Your task to perform on an android device: open app "Gmail" (install if not already installed) Image 0: 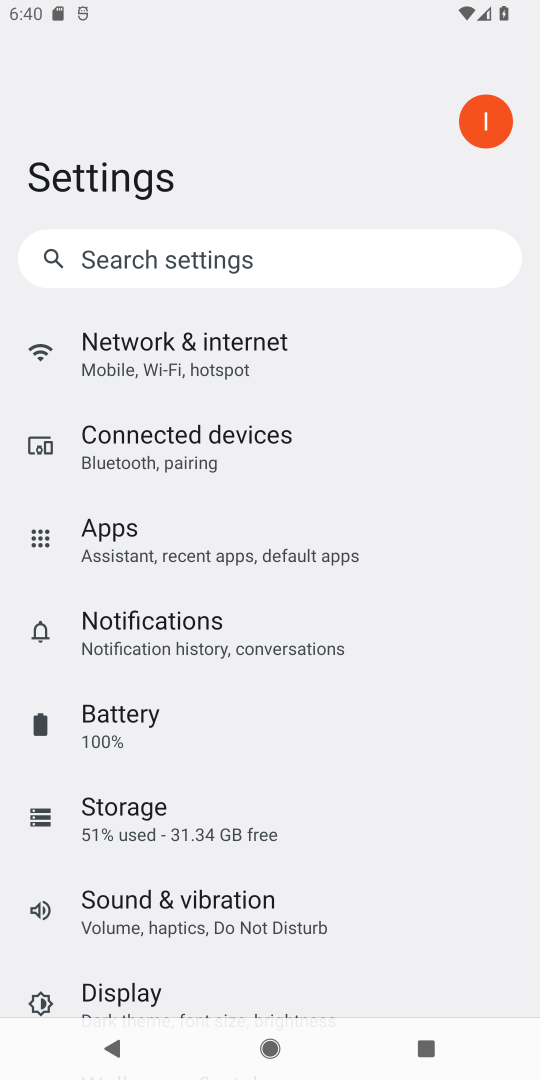
Step 0: press home button
Your task to perform on an android device: open app "Gmail" (install if not already installed) Image 1: 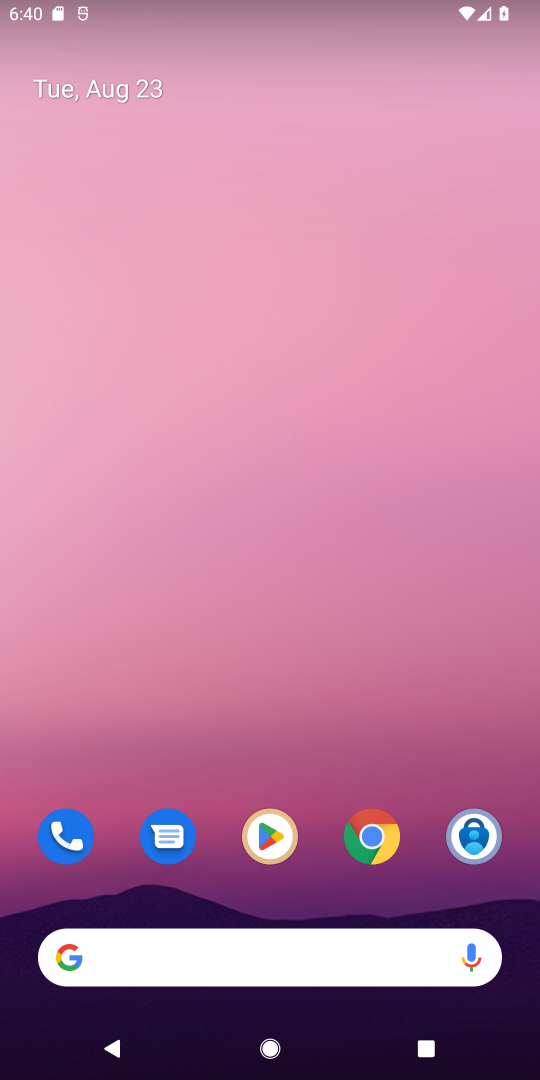
Step 1: click (269, 843)
Your task to perform on an android device: open app "Gmail" (install if not already installed) Image 2: 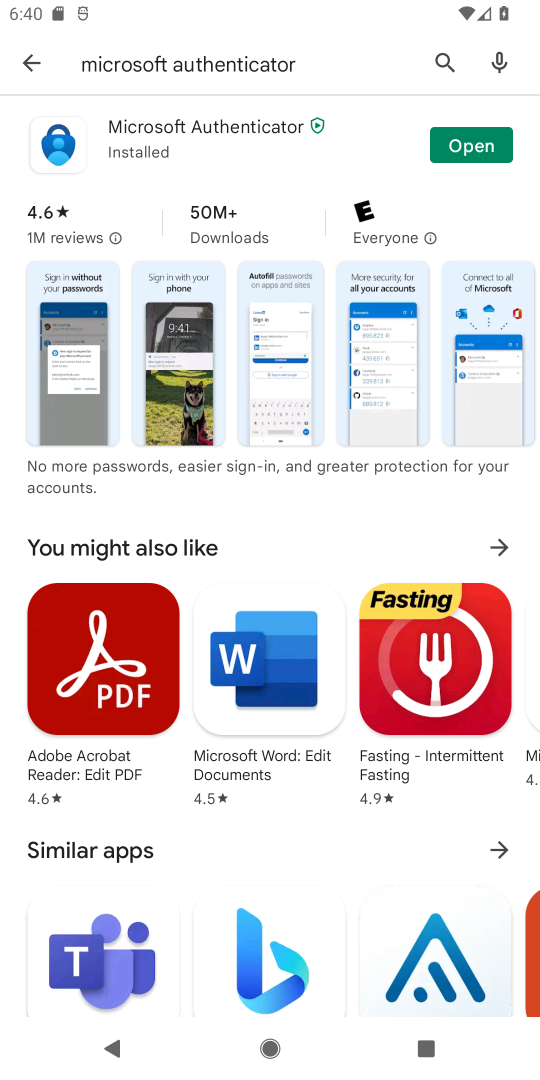
Step 2: click (443, 51)
Your task to perform on an android device: open app "Gmail" (install if not already installed) Image 3: 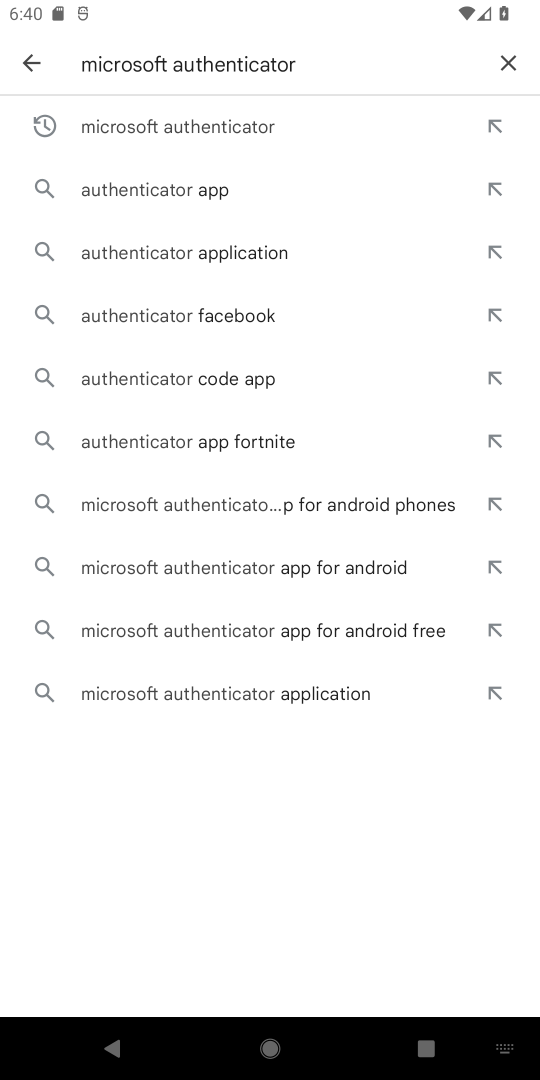
Step 3: click (505, 50)
Your task to perform on an android device: open app "Gmail" (install if not already installed) Image 4: 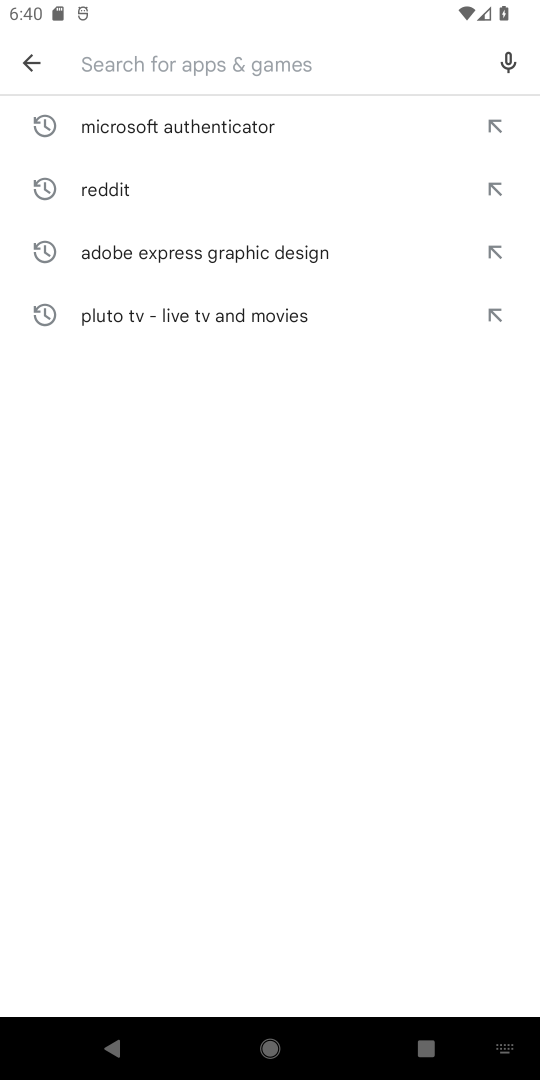
Step 4: type "Gmail"
Your task to perform on an android device: open app "Gmail" (install if not already installed) Image 5: 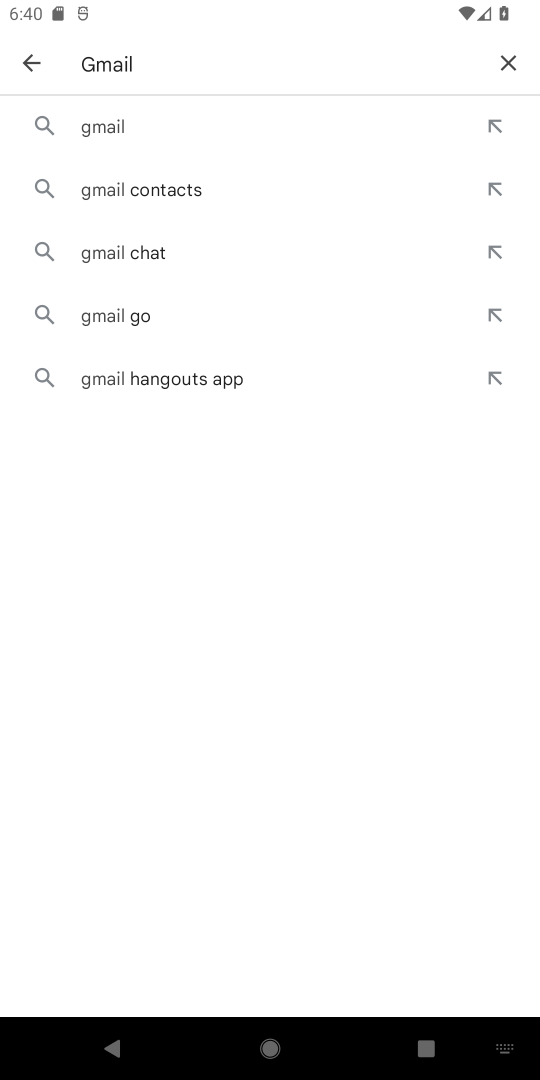
Step 5: click (219, 108)
Your task to perform on an android device: open app "Gmail" (install if not already installed) Image 6: 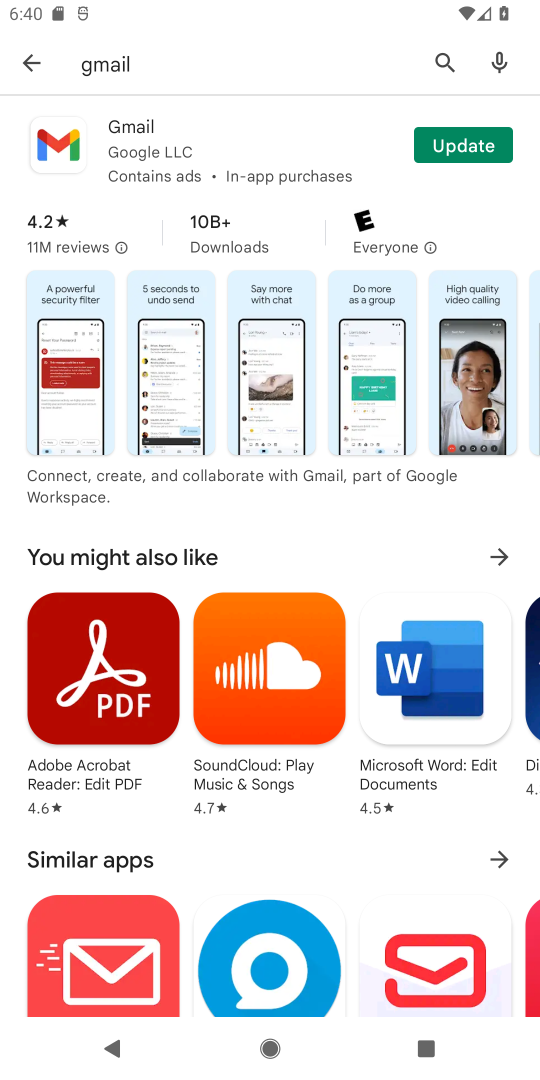
Step 6: click (135, 133)
Your task to perform on an android device: open app "Gmail" (install if not already installed) Image 7: 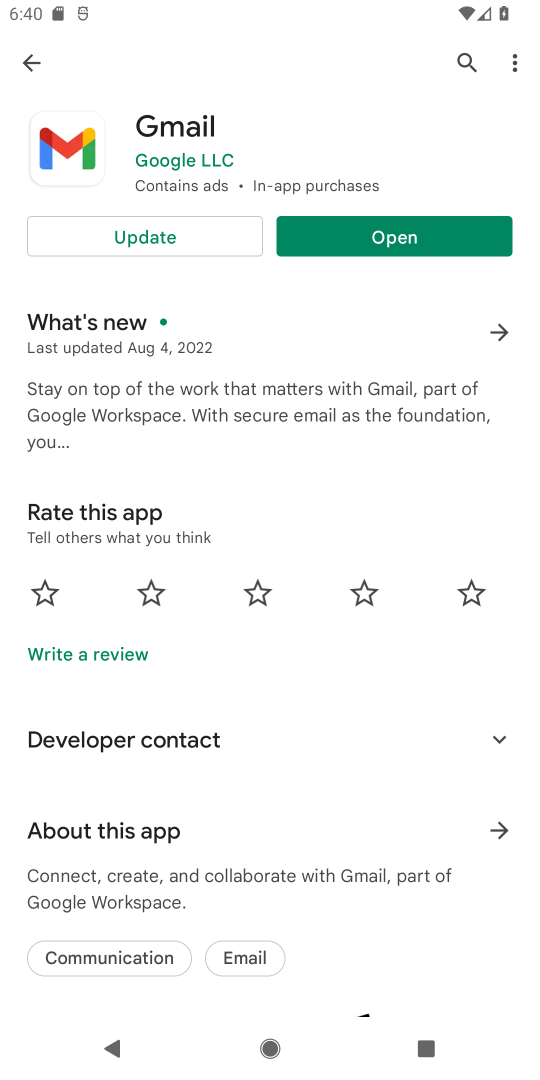
Step 7: click (344, 229)
Your task to perform on an android device: open app "Gmail" (install if not already installed) Image 8: 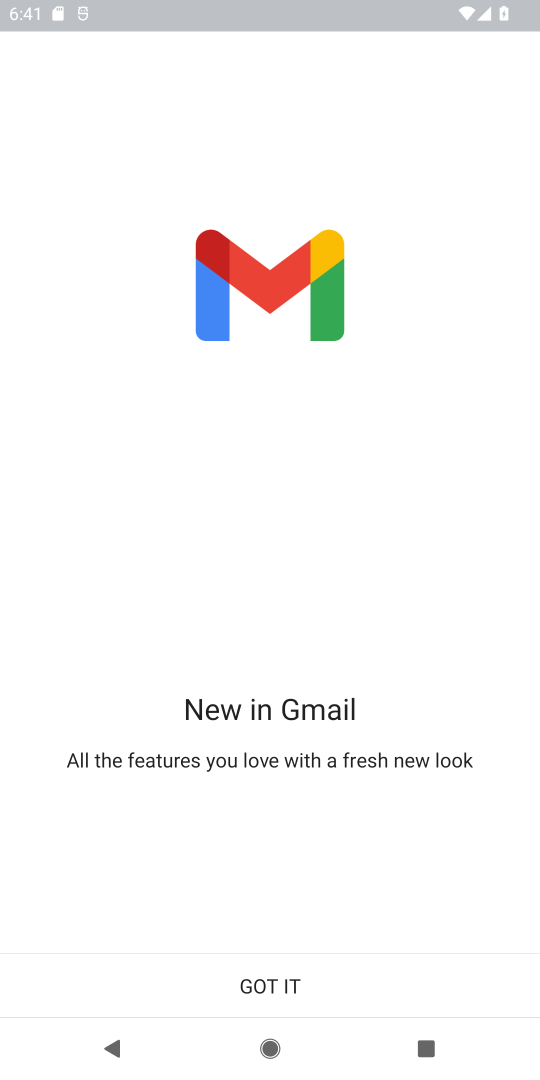
Step 8: click (287, 992)
Your task to perform on an android device: open app "Gmail" (install if not already installed) Image 9: 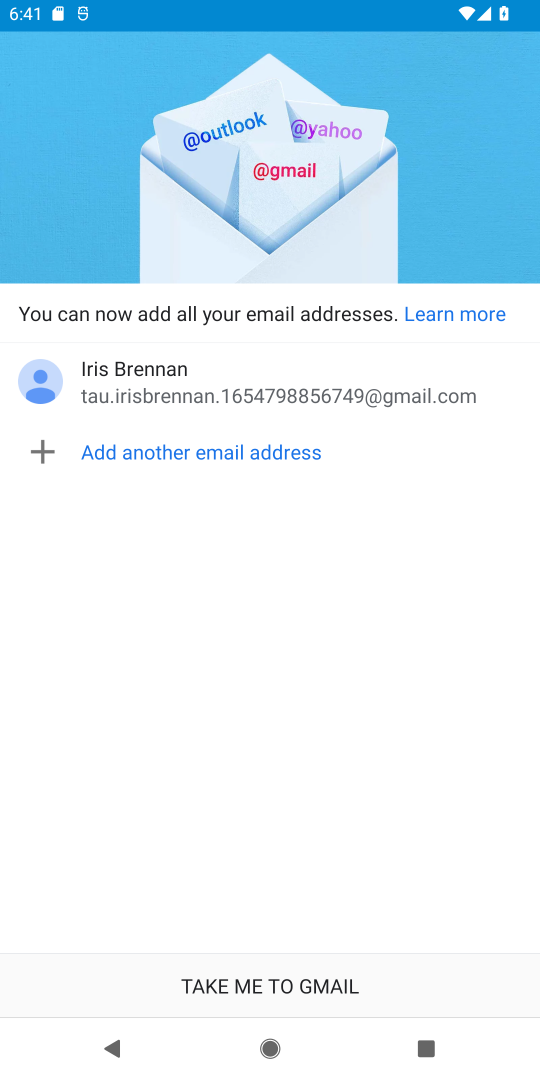
Step 9: click (287, 993)
Your task to perform on an android device: open app "Gmail" (install if not already installed) Image 10: 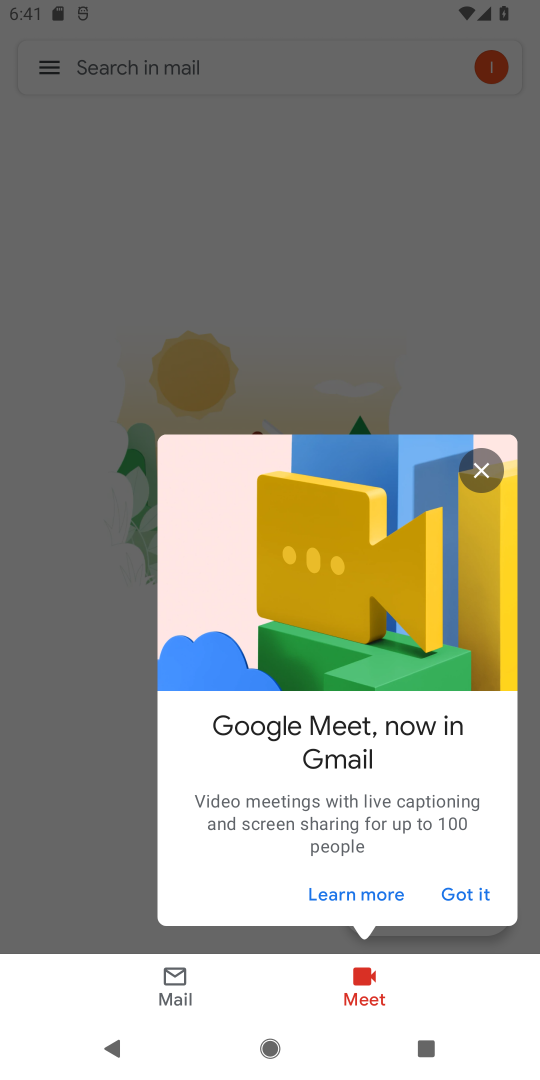
Step 10: task complete